Your task to perform on an android device: Add "alienware area 51" to the cart on ebay, then select checkout. Image 0: 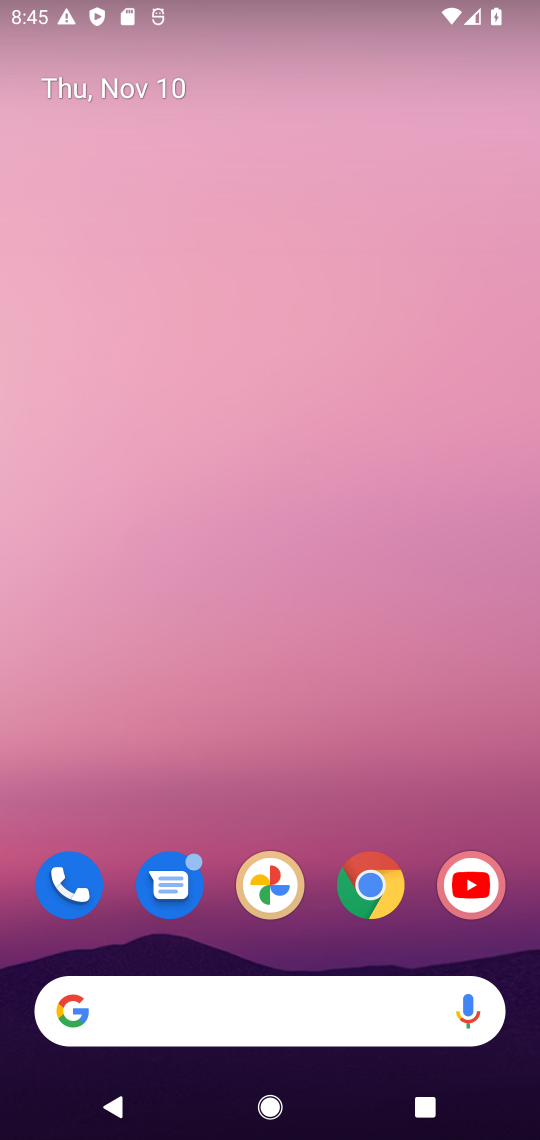
Step 0: click (360, 890)
Your task to perform on an android device: Add "alienware area 51" to the cart on ebay, then select checkout. Image 1: 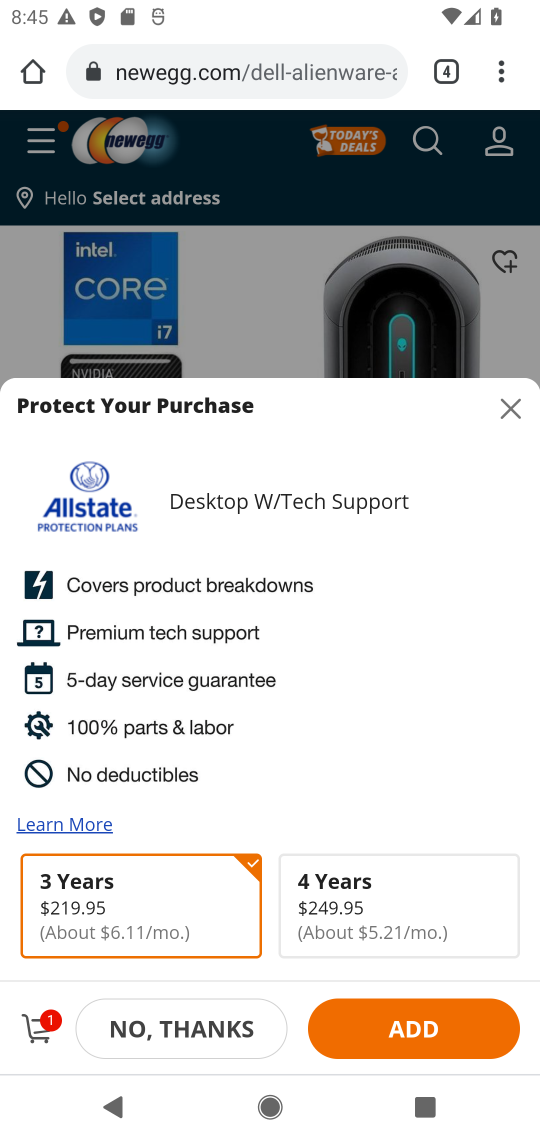
Step 1: click (443, 66)
Your task to perform on an android device: Add "alienware area 51" to the cart on ebay, then select checkout. Image 2: 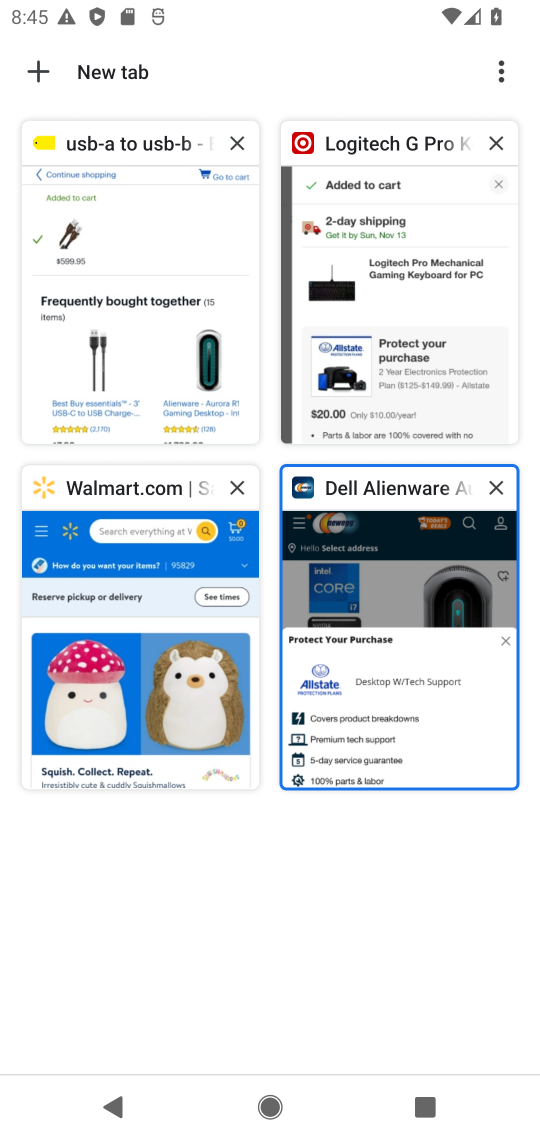
Step 2: click (36, 64)
Your task to perform on an android device: Add "alienware area 51" to the cart on ebay, then select checkout. Image 3: 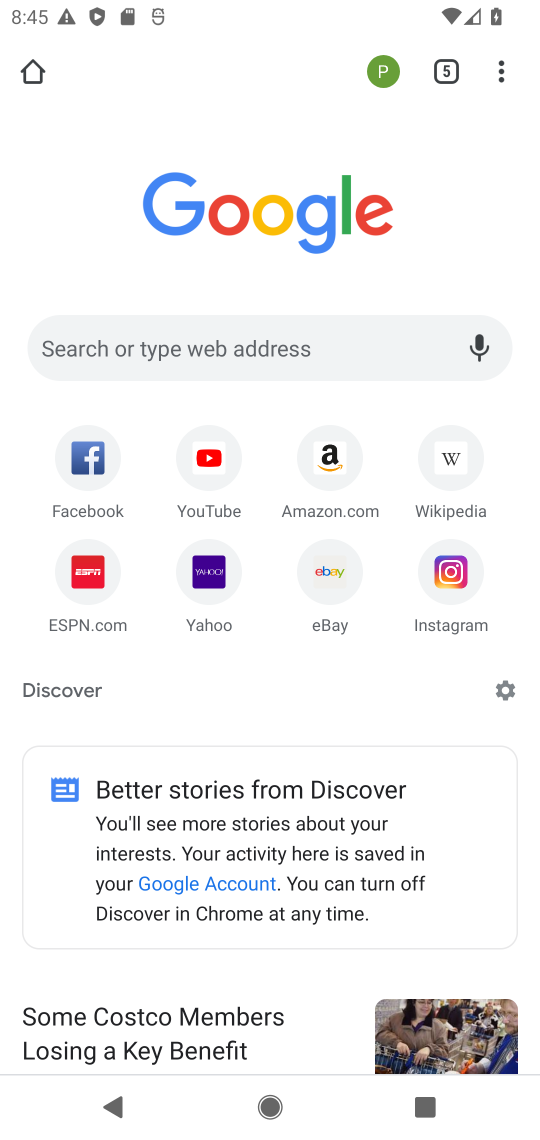
Step 3: click (348, 578)
Your task to perform on an android device: Add "alienware area 51" to the cart on ebay, then select checkout. Image 4: 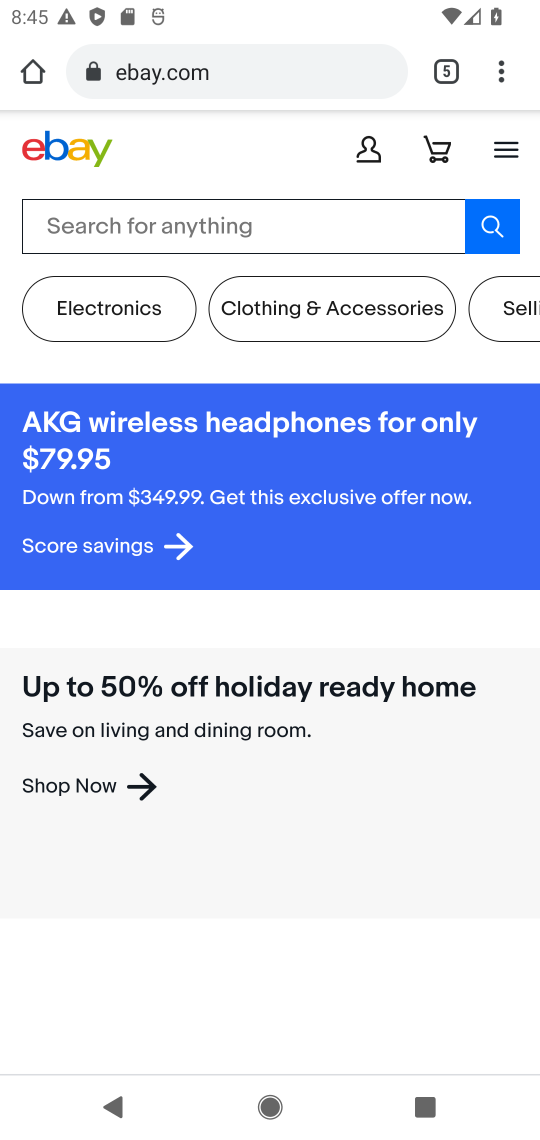
Step 4: click (214, 223)
Your task to perform on an android device: Add "alienware area 51" to the cart on ebay, then select checkout. Image 5: 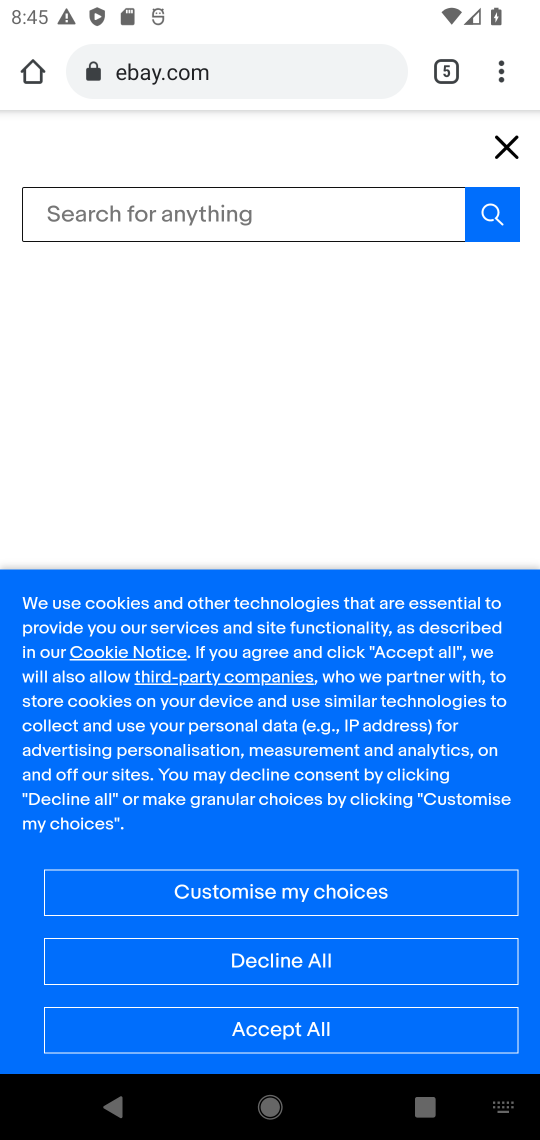
Step 5: type "alienware area 51"
Your task to perform on an android device: Add "alienware area 51" to the cart on ebay, then select checkout. Image 6: 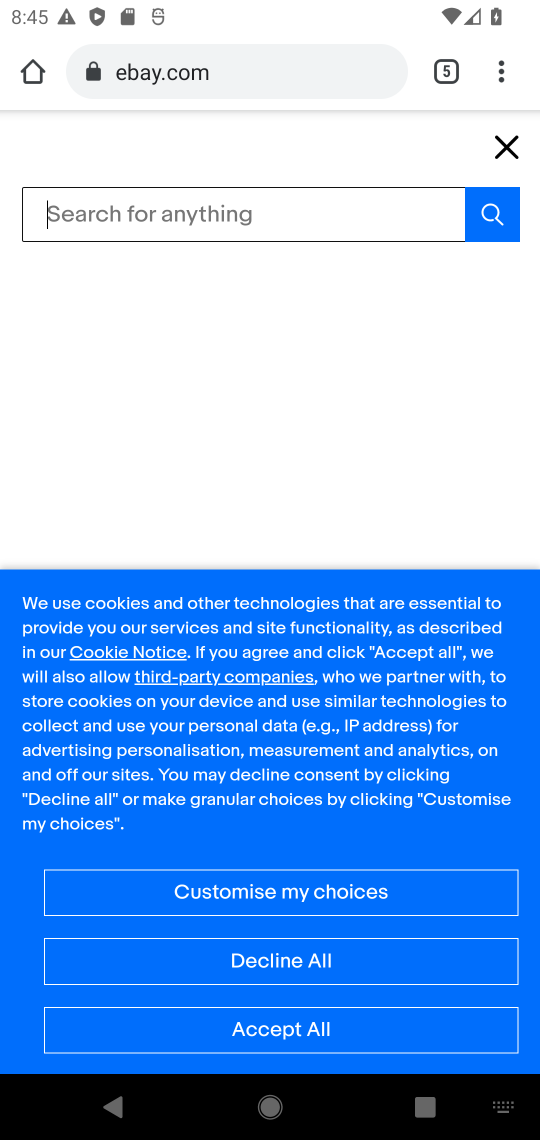
Step 6: click (365, 968)
Your task to perform on an android device: Add "alienware area 51" to the cart on ebay, then select checkout. Image 7: 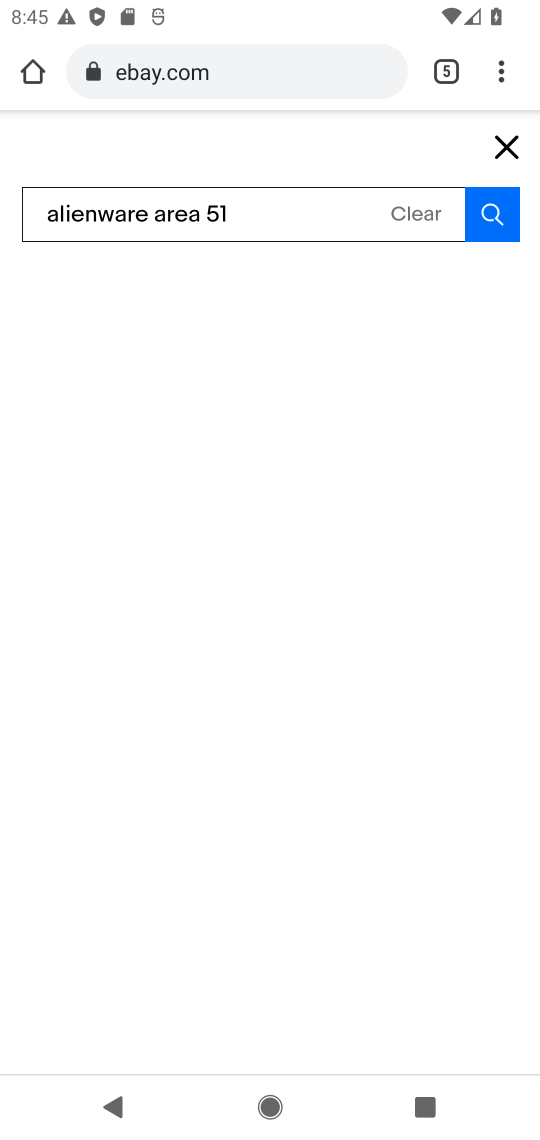
Step 7: click (496, 218)
Your task to perform on an android device: Add "alienware area 51" to the cart on ebay, then select checkout. Image 8: 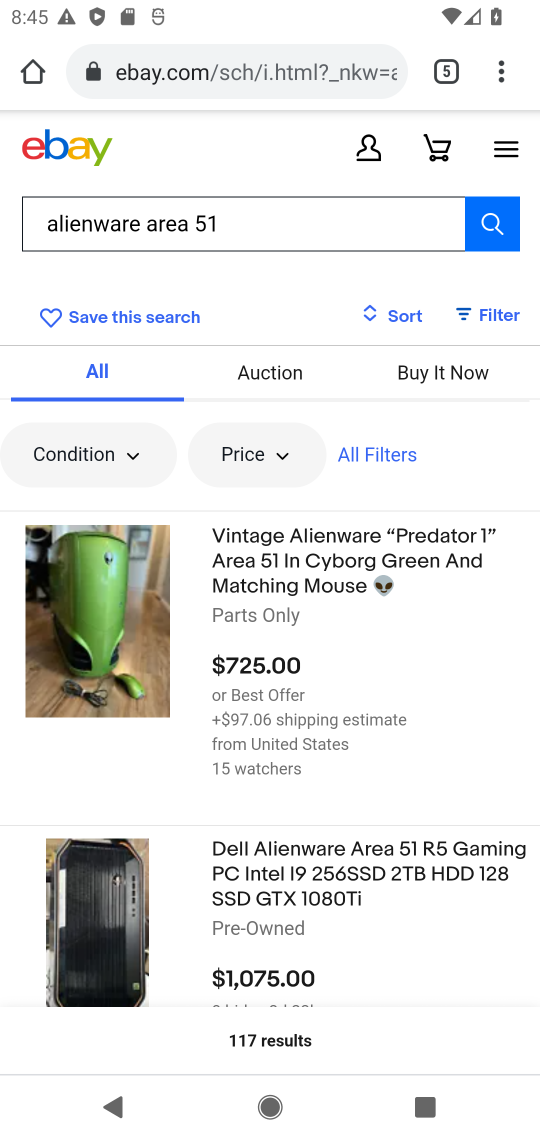
Step 8: click (283, 882)
Your task to perform on an android device: Add "alienware area 51" to the cart on ebay, then select checkout. Image 9: 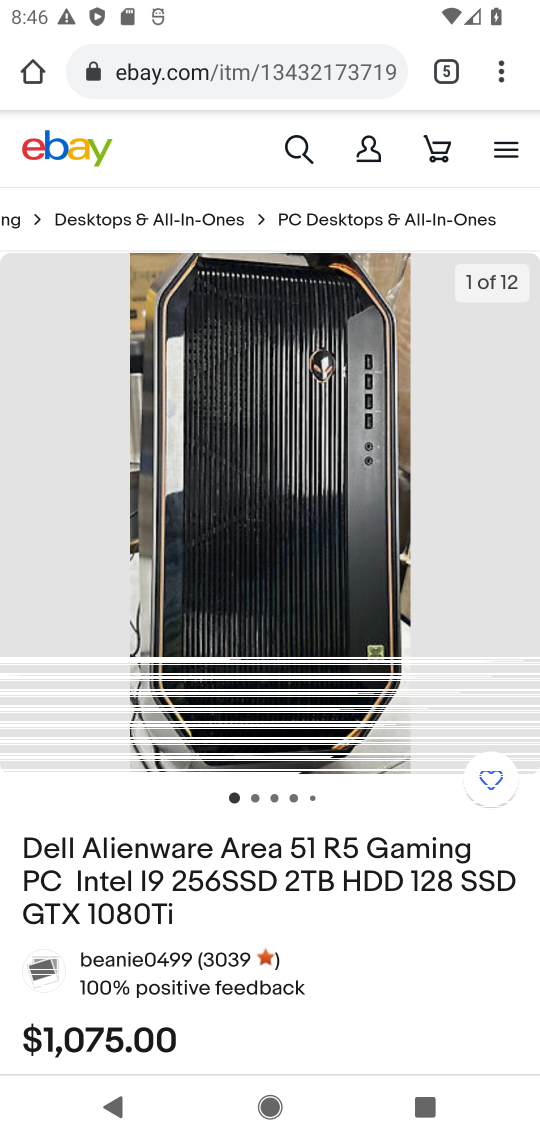
Step 9: drag from (369, 932) to (534, 295)
Your task to perform on an android device: Add "alienware area 51" to the cart on ebay, then select checkout. Image 10: 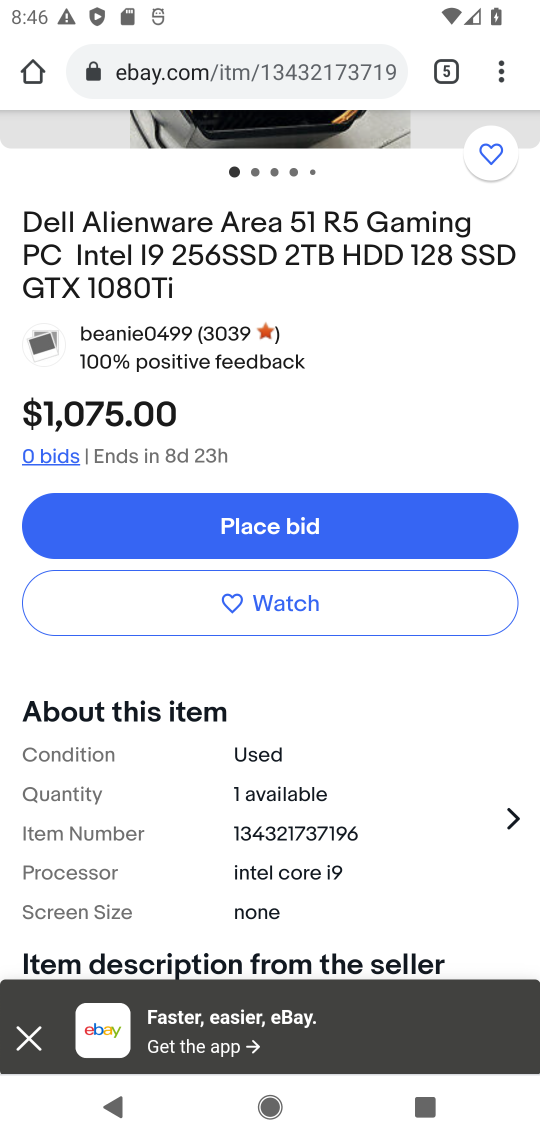
Step 10: drag from (339, 730) to (446, 21)
Your task to perform on an android device: Add "alienware area 51" to the cart on ebay, then select checkout. Image 11: 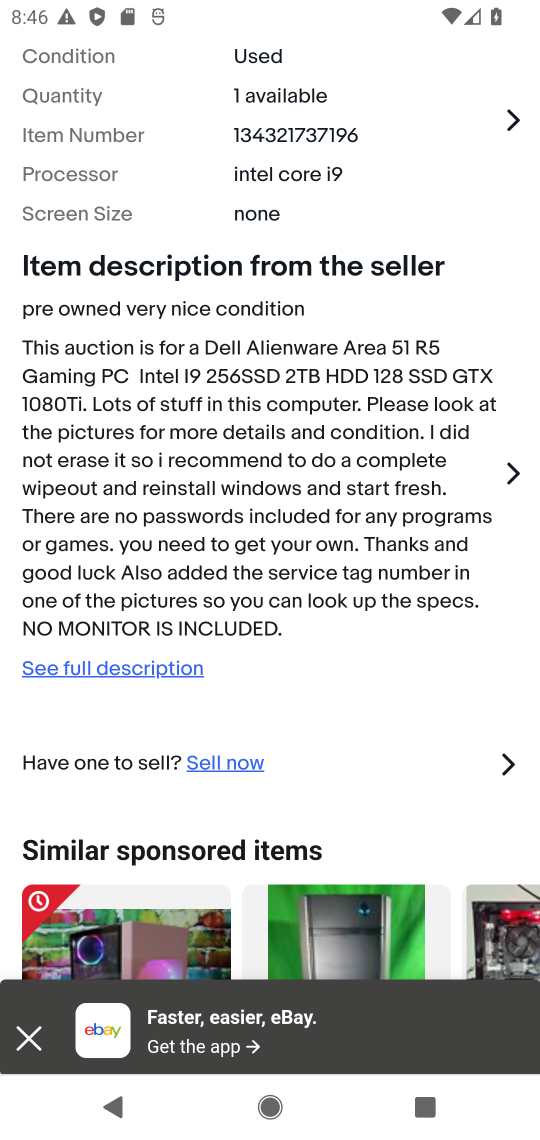
Step 11: press back button
Your task to perform on an android device: Add "alienware area 51" to the cart on ebay, then select checkout. Image 12: 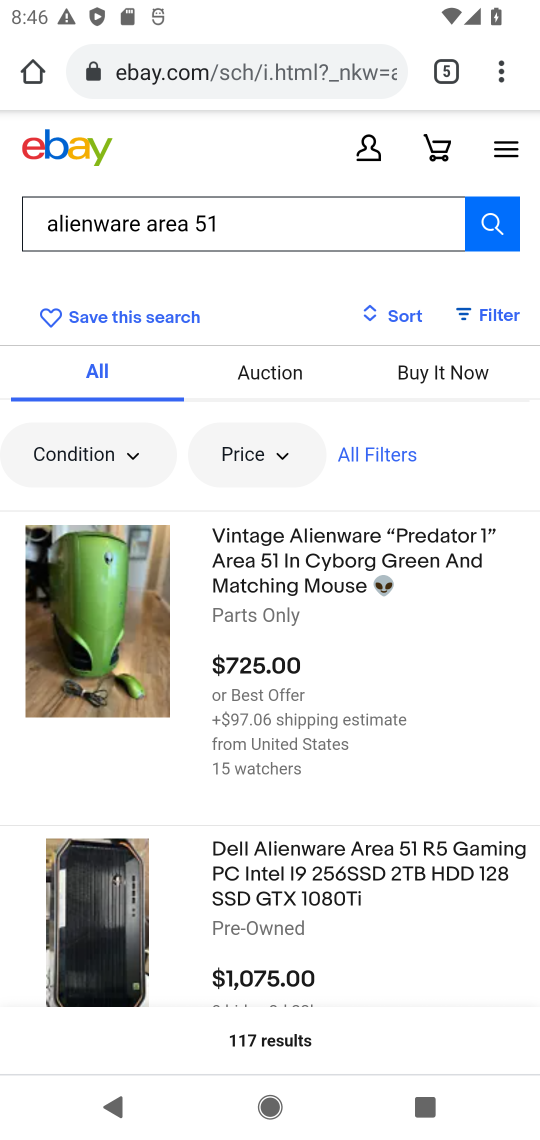
Step 12: drag from (410, 1005) to (438, 410)
Your task to perform on an android device: Add "alienware area 51" to the cart on ebay, then select checkout. Image 13: 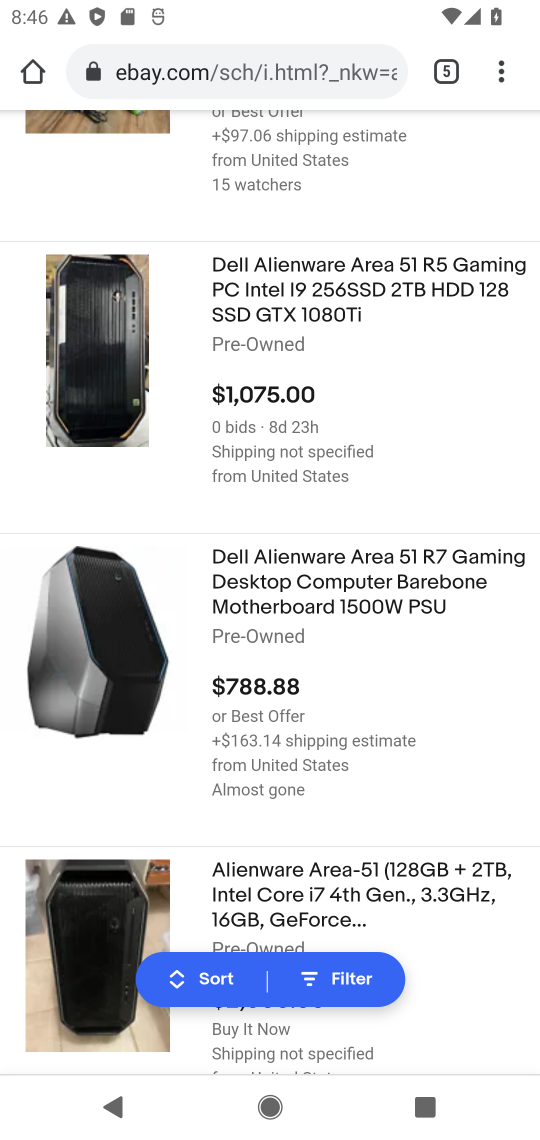
Step 13: click (361, 572)
Your task to perform on an android device: Add "alienware area 51" to the cart on ebay, then select checkout. Image 14: 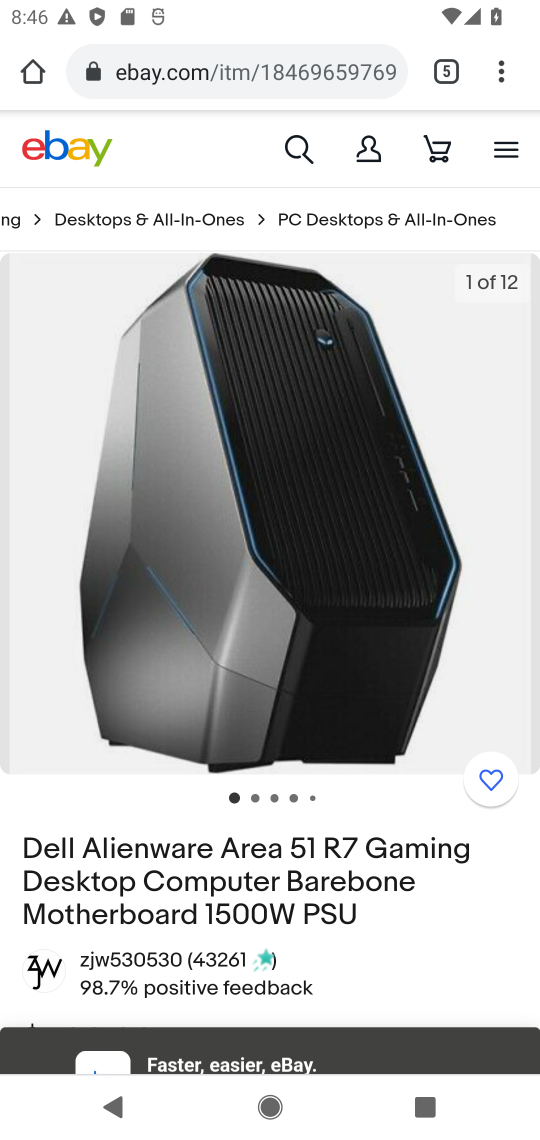
Step 14: drag from (437, 896) to (491, 357)
Your task to perform on an android device: Add "alienware area 51" to the cart on ebay, then select checkout. Image 15: 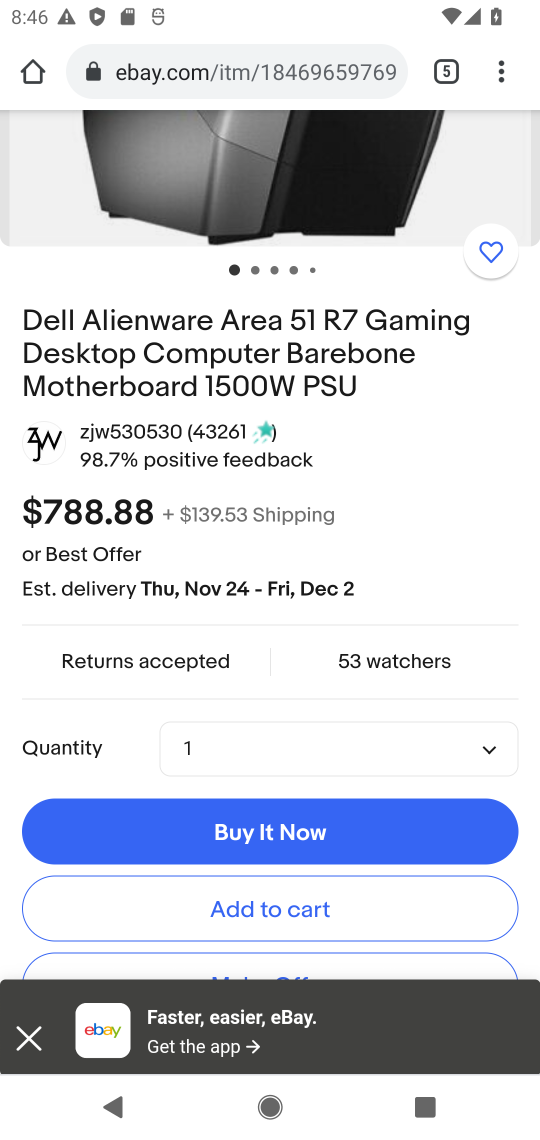
Step 15: click (317, 902)
Your task to perform on an android device: Add "alienware area 51" to the cart on ebay, then select checkout. Image 16: 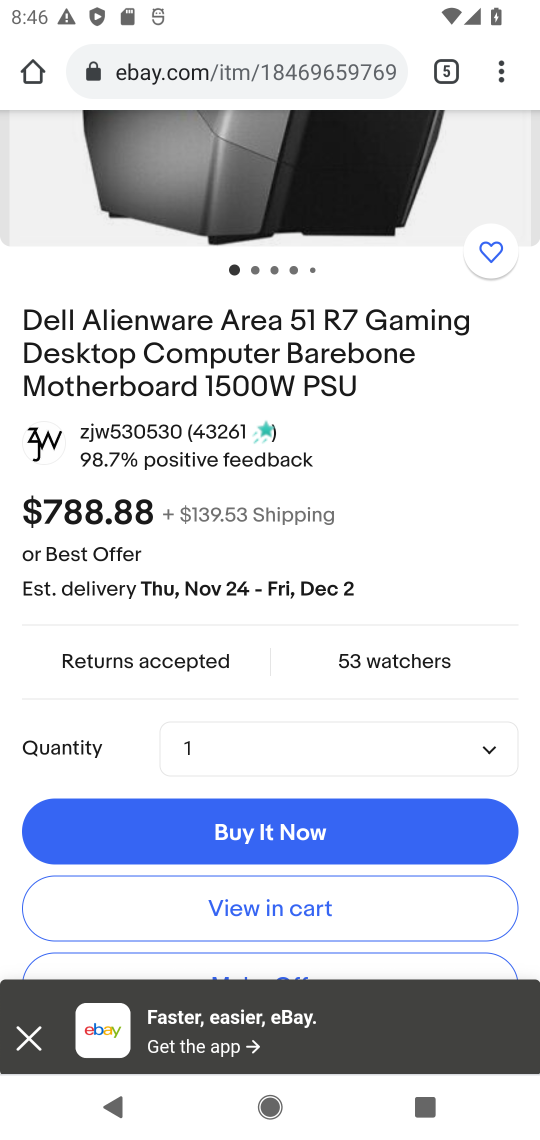
Step 16: click (317, 902)
Your task to perform on an android device: Add "alienware area 51" to the cart on ebay, then select checkout. Image 17: 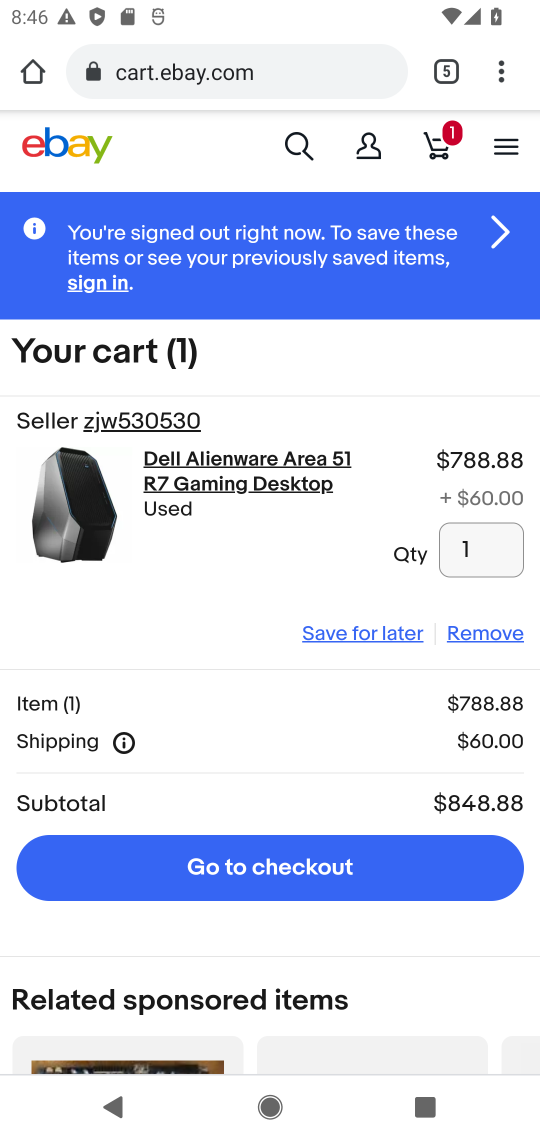
Step 17: click (307, 859)
Your task to perform on an android device: Add "alienware area 51" to the cart on ebay, then select checkout. Image 18: 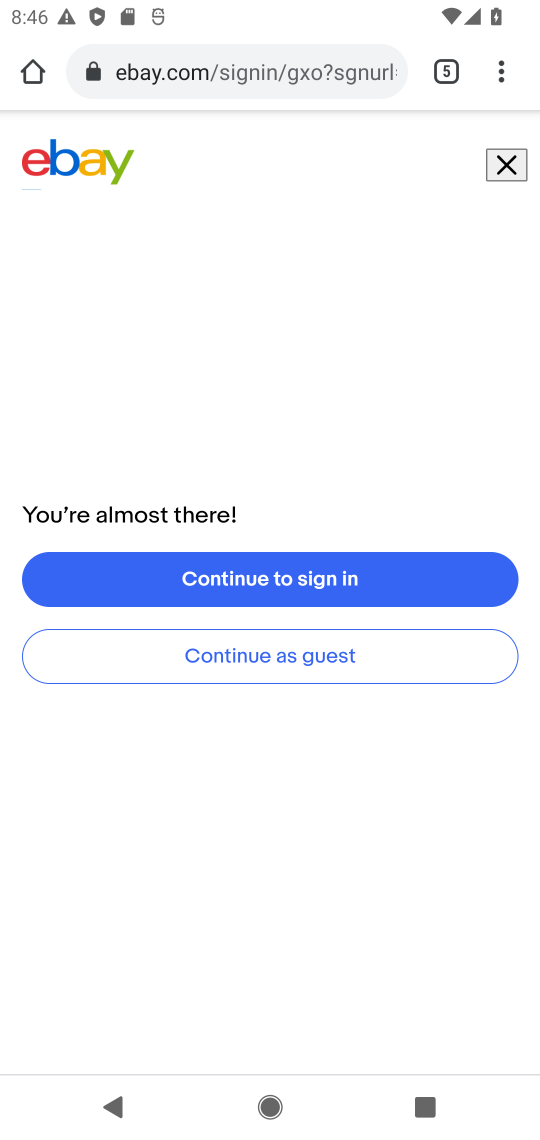
Step 18: task complete